Your task to perform on an android device: Empty the shopping cart on costco.com. Add macbook air to the cart on costco.com Image 0: 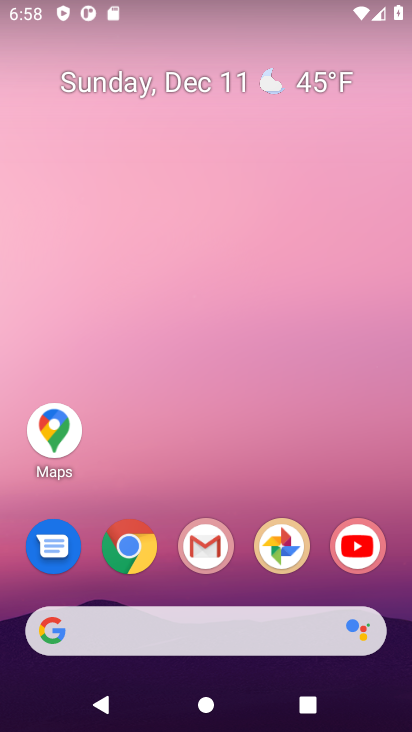
Step 0: click (126, 545)
Your task to perform on an android device: Empty the shopping cart on costco.com. Add macbook air to the cart on costco.com Image 1: 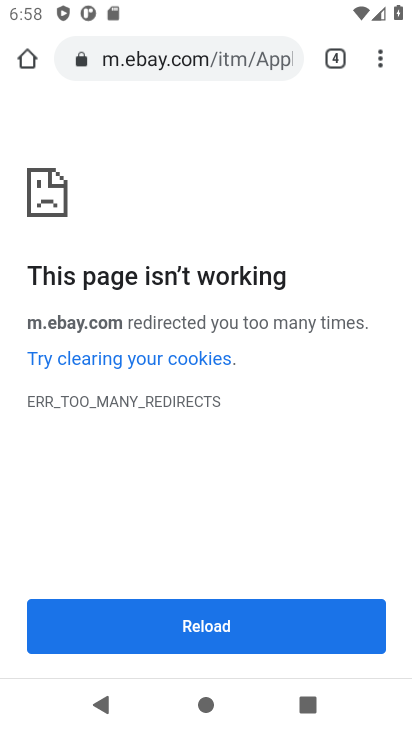
Step 1: click (171, 59)
Your task to perform on an android device: Empty the shopping cart on costco.com. Add macbook air to the cart on costco.com Image 2: 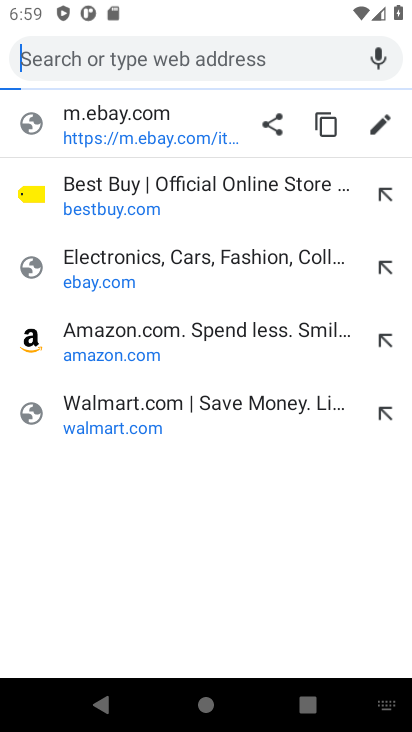
Step 2: type "costco.com"
Your task to perform on an android device: Empty the shopping cart on costco.com. Add macbook air to the cart on costco.com Image 3: 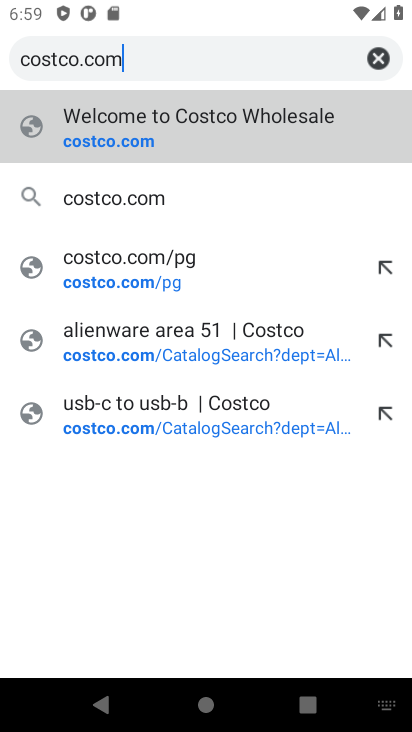
Step 3: click (124, 137)
Your task to perform on an android device: Empty the shopping cart on costco.com. Add macbook air to the cart on costco.com Image 4: 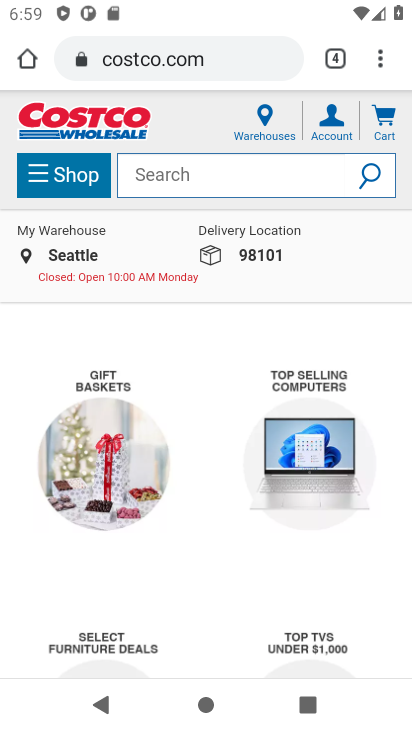
Step 4: click (386, 121)
Your task to perform on an android device: Empty the shopping cart on costco.com. Add macbook air to the cart on costco.com Image 5: 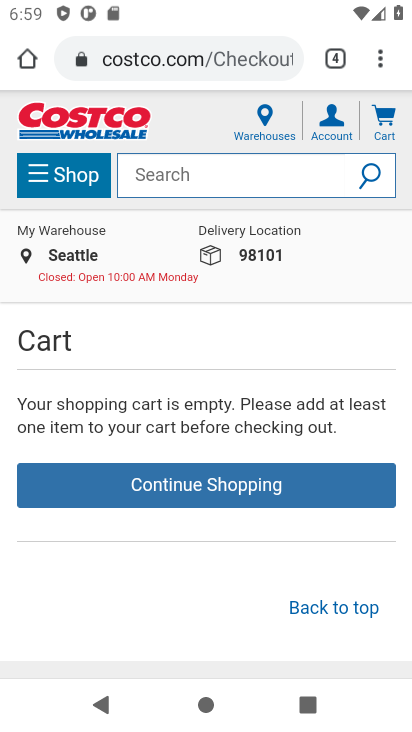
Step 5: click (176, 174)
Your task to perform on an android device: Empty the shopping cart on costco.com. Add macbook air to the cart on costco.com Image 6: 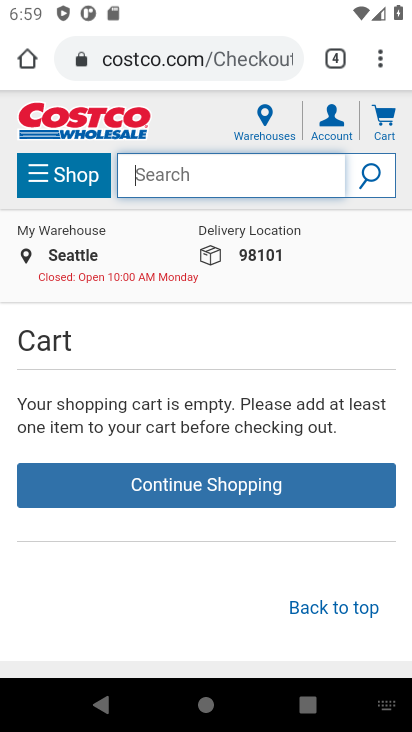
Step 6: type "macbook air"
Your task to perform on an android device: Empty the shopping cart on costco.com. Add macbook air to the cart on costco.com Image 7: 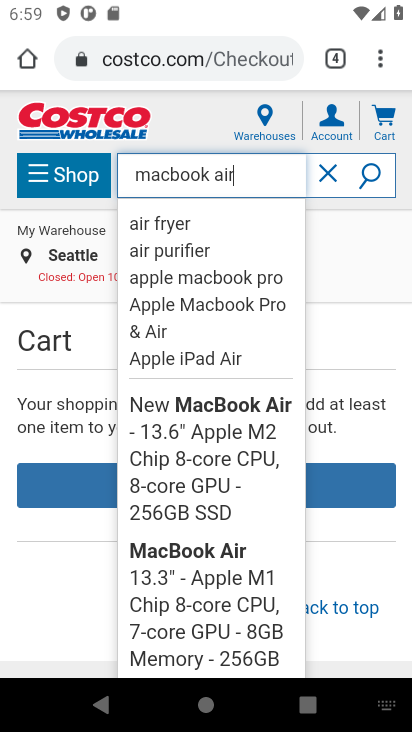
Step 7: click (363, 180)
Your task to perform on an android device: Empty the shopping cart on costco.com. Add macbook air to the cart on costco.com Image 8: 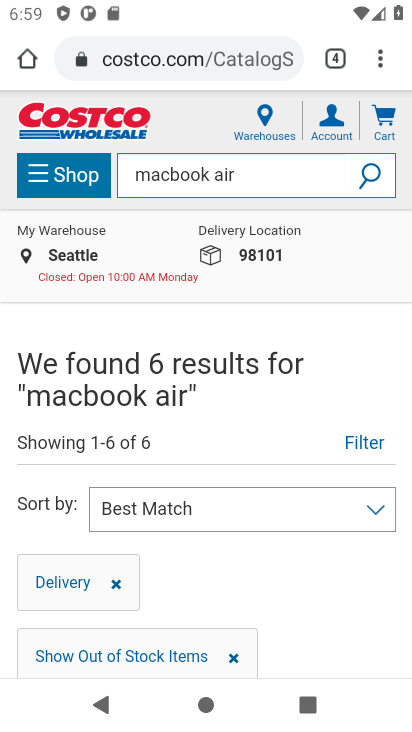
Step 8: drag from (179, 500) to (181, 227)
Your task to perform on an android device: Empty the shopping cart on costco.com. Add macbook air to the cart on costco.com Image 9: 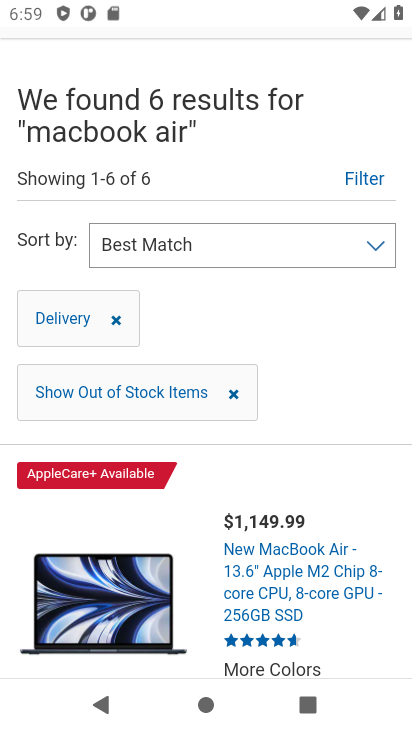
Step 9: drag from (147, 512) to (155, 279)
Your task to perform on an android device: Empty the shopping cart on costco.com. Add macbook air to the cart on costco.com Image 10: 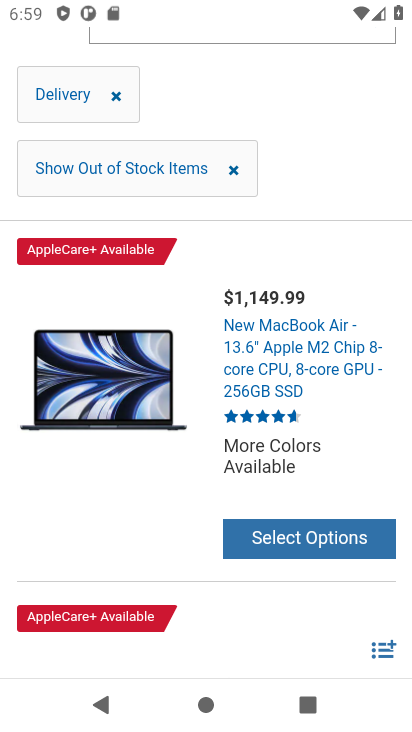
Step 10: click (272, 354)
Your task to perform on an android device: Empty the shopping cart on costco.com. Add macbook air to the cart on costco.com Image 11: 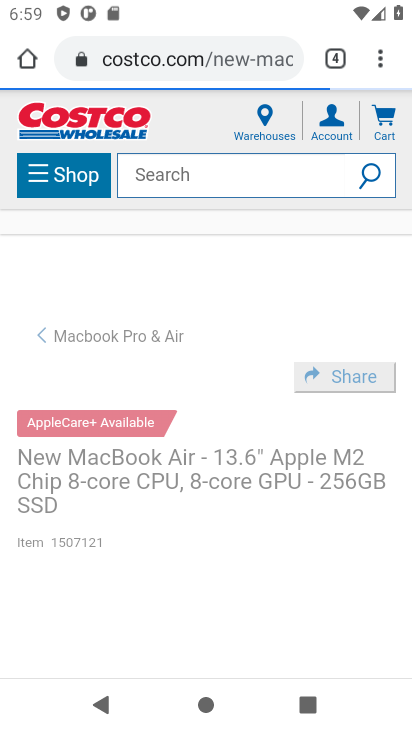
Step 11: drag from (259, 558) to (242, 303)
Your task to perform on an android device: Empty the shopping cart on costco.com. Add macbook air to the cart on costco.com Image 12: 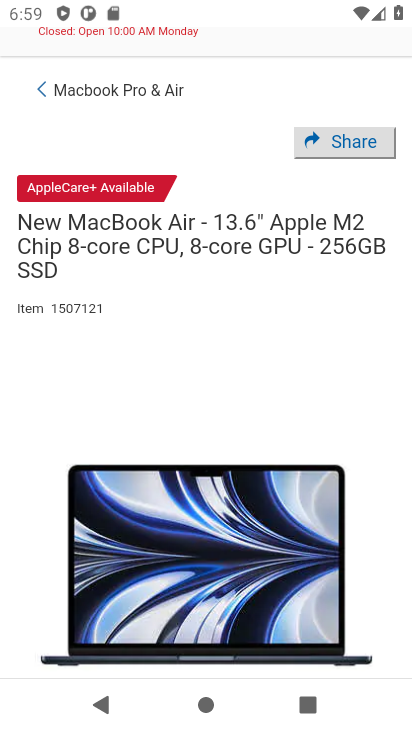
Step 12: drag from (275, 533) to (220, 145)
Your task to perform on an android device: Empty the shopping cart on costco.com. Add macbook air to the cart on costco.com Image 13: 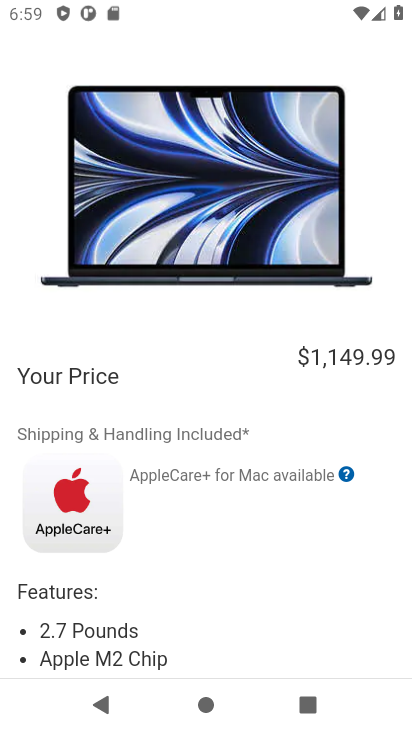
Step 13: drag from (232, 594) to (210, 225)
Your task to perform on an android device: Empty the shopping cart on costco.com. Add macbook air to the cart on costco.com Image 14: 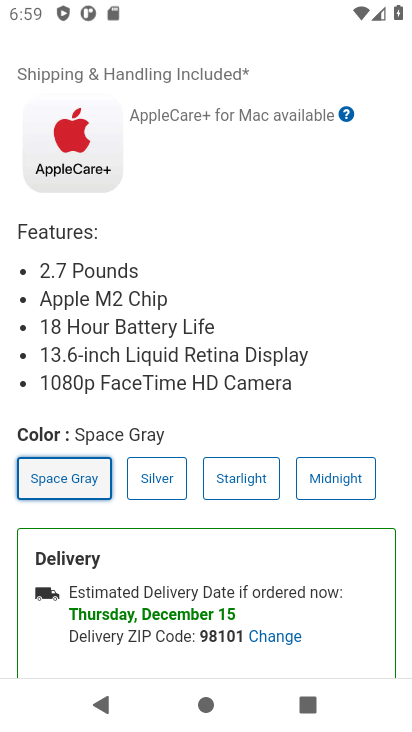
Step 14: drag from (222, 491) to (178, 111)
Your task to perform on an android device: Empty the shopping cart on costco.com. Add macbook air to the cart on costco.com Image 15: 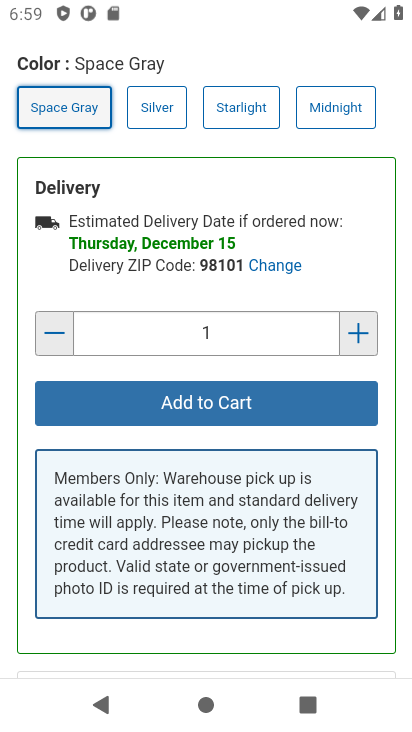
Step 15: click (195, 413)
Your task to perform on an android device: Empty the shopping cart on costco.com. Add macbook air to the cart on costco.com Image 16: 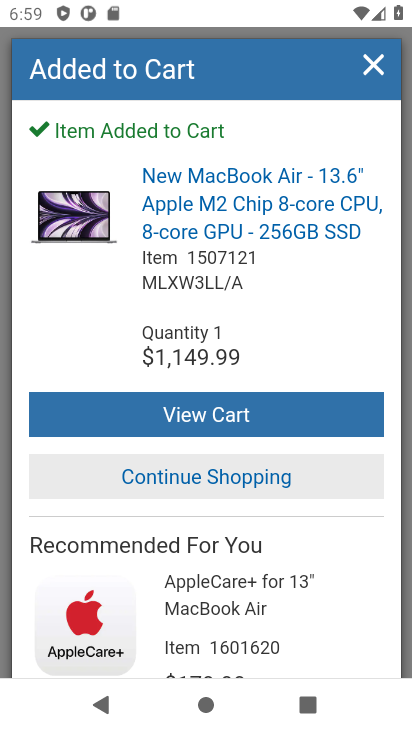
Step 16: task complete